Your task to perform on an android device: Go to internet settings Image 0: 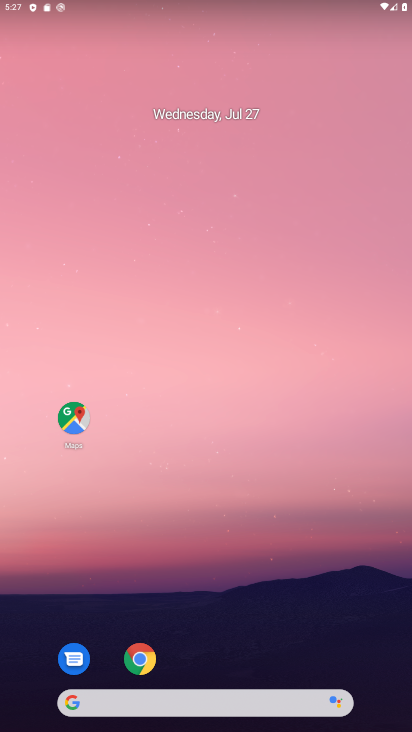
Step 0: drag from (285, 641) to (291, 113)
Your task to perform on an android device: Go to internet settings Image 1: 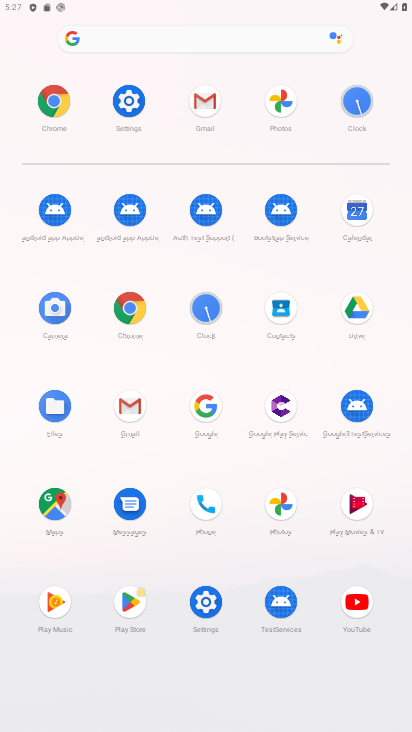
Step 1: click (131, 97)
Your task to perform on an android device: Go to internet settings Image 2: 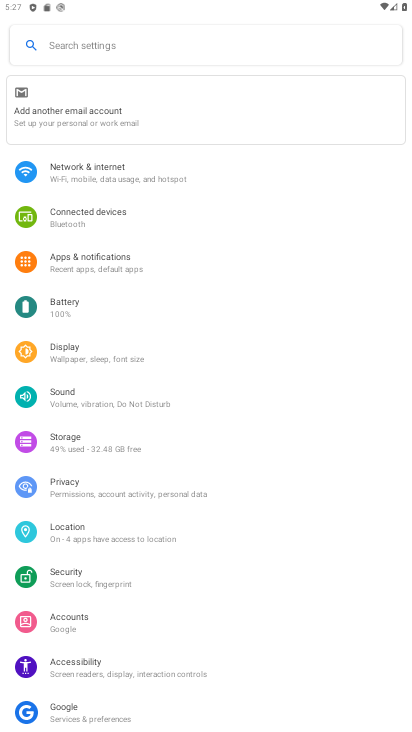
Step 2: click (96, 165)
Your task to perform on an android device: Go to internet settings Image 3: 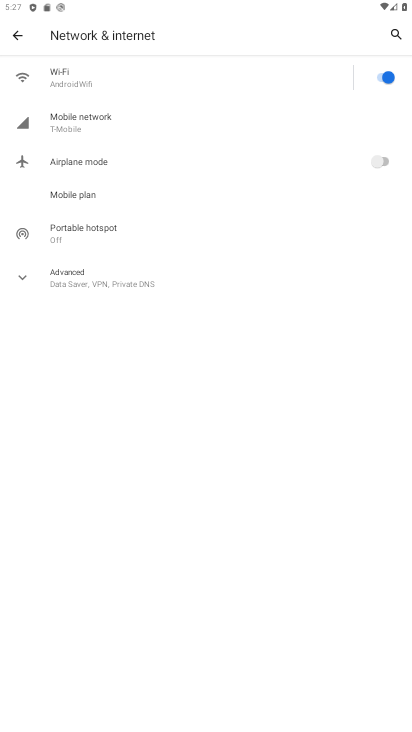
Step 3: task complete